Your task to perform on an android device: empty trash in the gmail app Image 0: 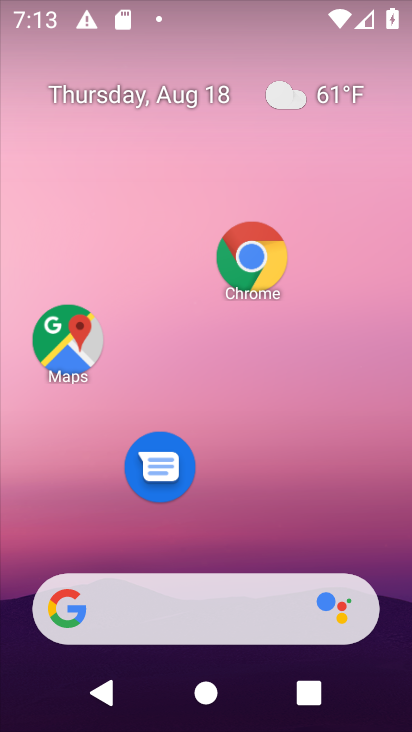
Step 0: drag from (333, 532) to (361, 207)
Your task to perform on an android device: empty trash in the gmail app Image 1: 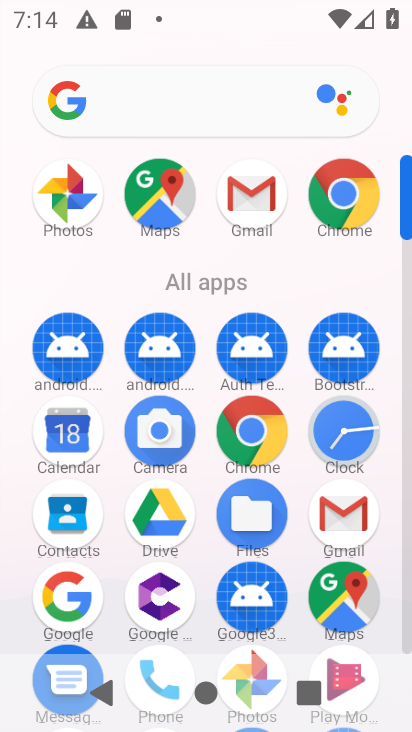
Step 1: click (361, 207)
Your task to perform on an android device: empty trash in the gmail app Image 2: 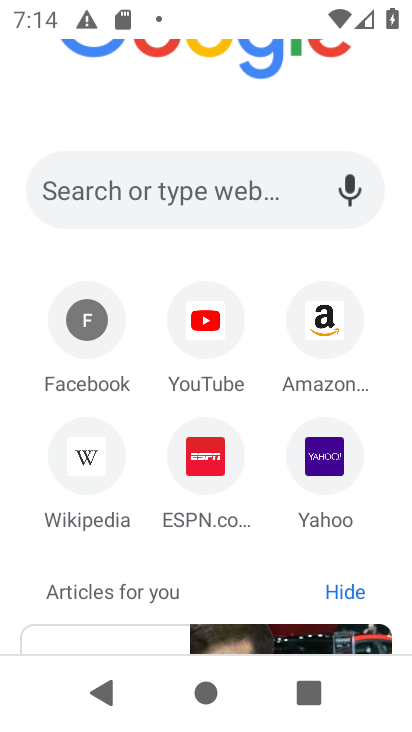
Step 2: task complete